Your task to perform on an android device: Open settings on Google Maps Image 0: 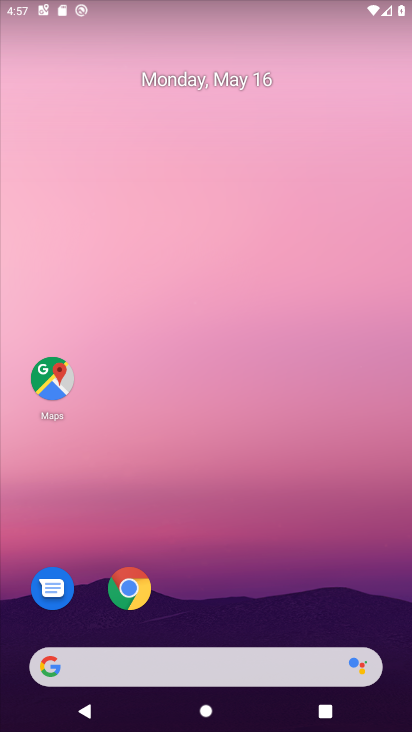
Step 0: click (54, 374)
Your task to perform on an android device: Open settings on Google Maps Image 1: 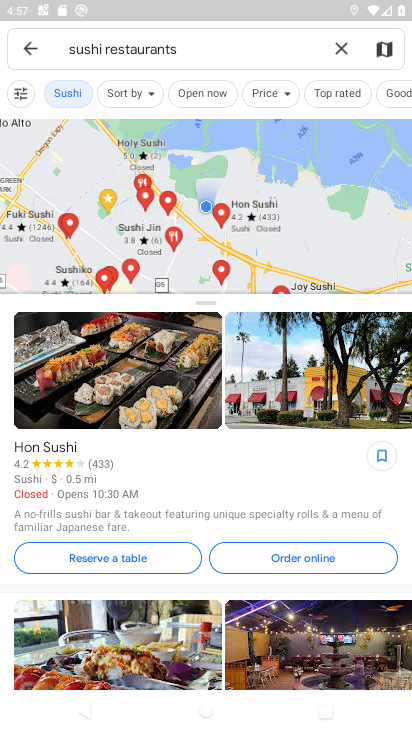
Step 1: click (342, 51)
Your task to perform on an android device: Open settings on Google Maps Image 2: 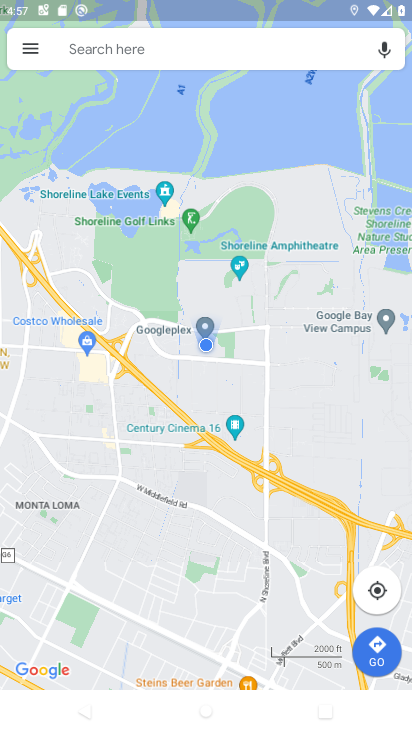
Step 2: click (28, 41)
Your task to perform on an android device: Open settings on Google Maps Image 3: 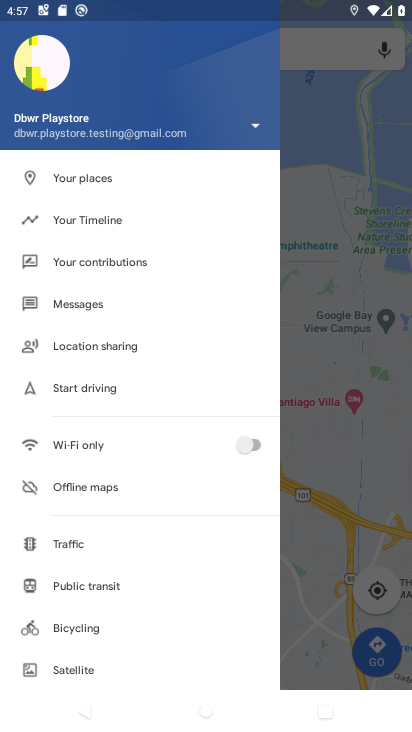
Step 3: drag from (113, 651) to (111, 245)
Your task to perform on an android device: Open settings on Google Maps Image 4: 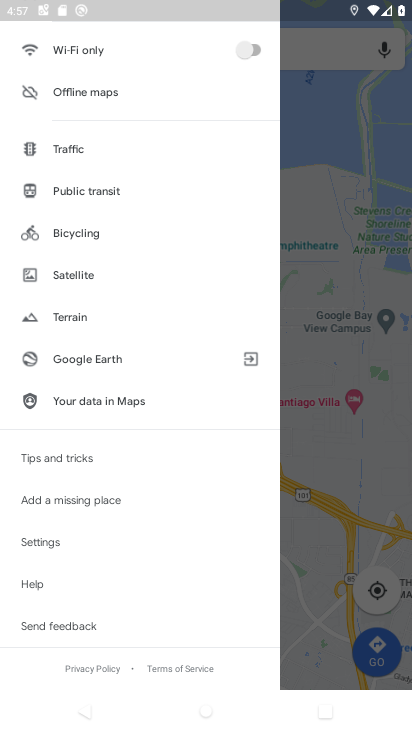
Step 4: click (77, 538)
Your task to perform on an android device: Open settings on Google Maps Image 5: 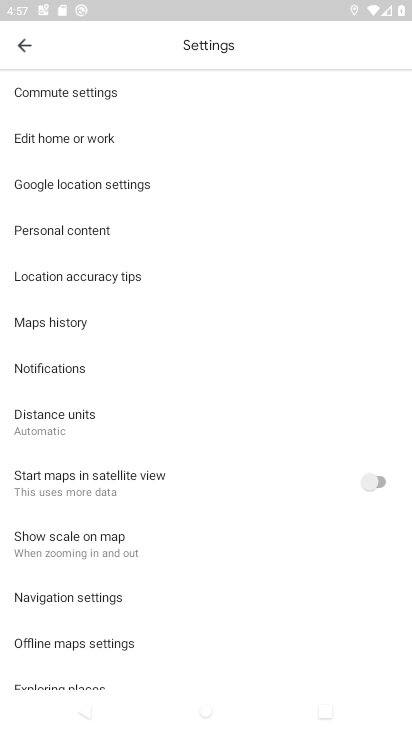
Step 5: task complete